Your task to perform on an android device: delete the emails in spam in the gmail app Image 0: 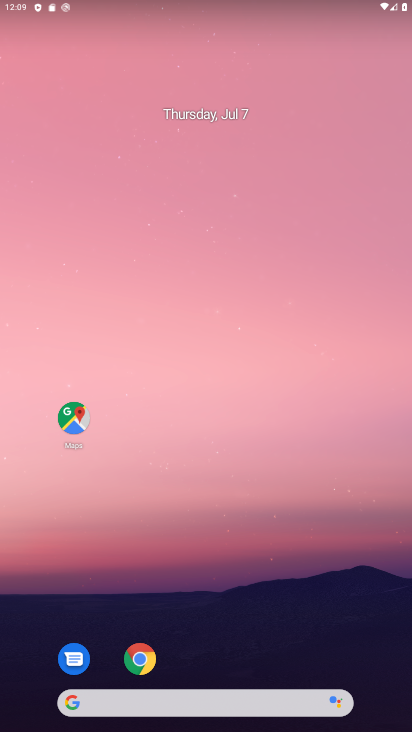
Step 0: drag from (265, 594) to (198, 95)
Your task to perform on an android device: delete the emails in spam in the gmail app Image 1: 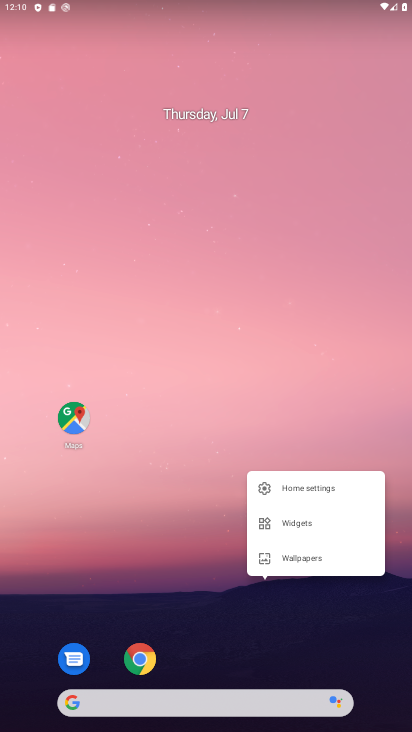
Step 1: drag from (168, 537) to (183, 27)
Your task to perform on an android device: delete the emails in spam in the gmail app Image 2: 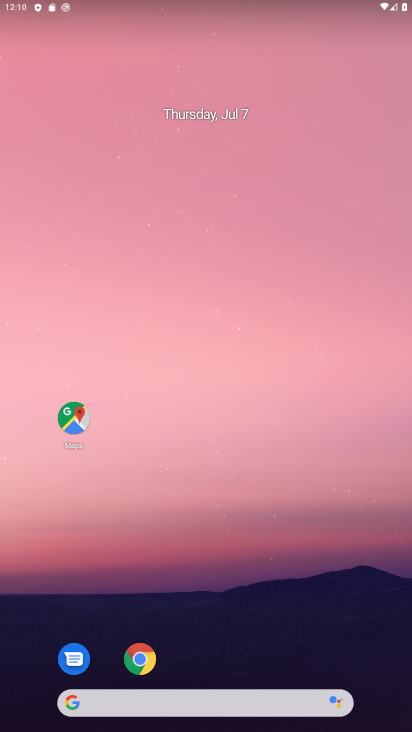
Step 2: drag from (265, 668) to (189, 121)
Your task to perform on an android device: delete the emails in spam in the gmail app Image 3: 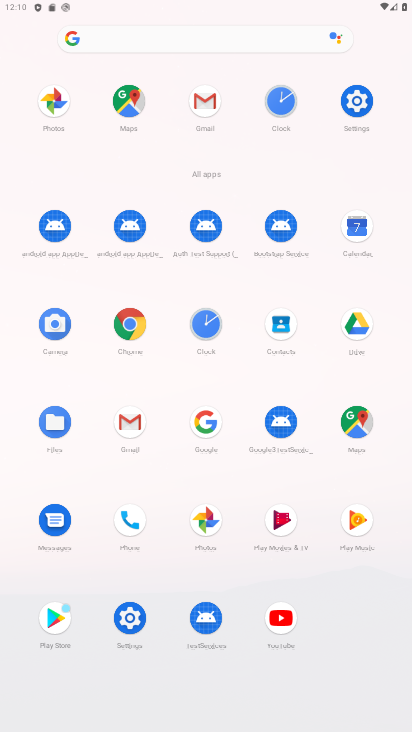
Step 3: click (209, 96)
Your task to perform on an android device: delete the emails in spam in the gmail app Image 4: 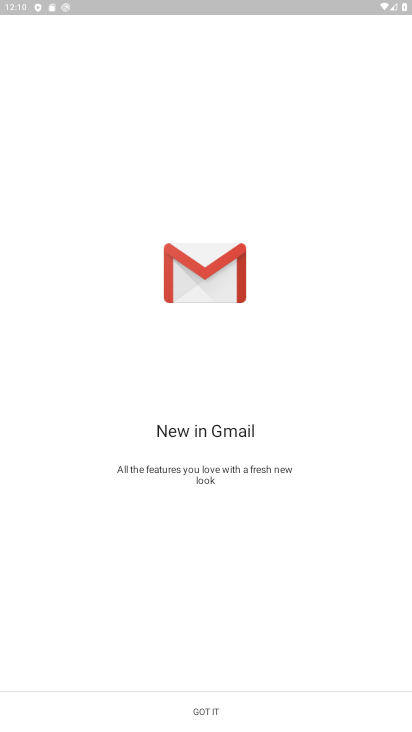
Step 4: click (215, 715)
Your task to perform on an android device: delete the emails in spam in the gmail app Image 5: 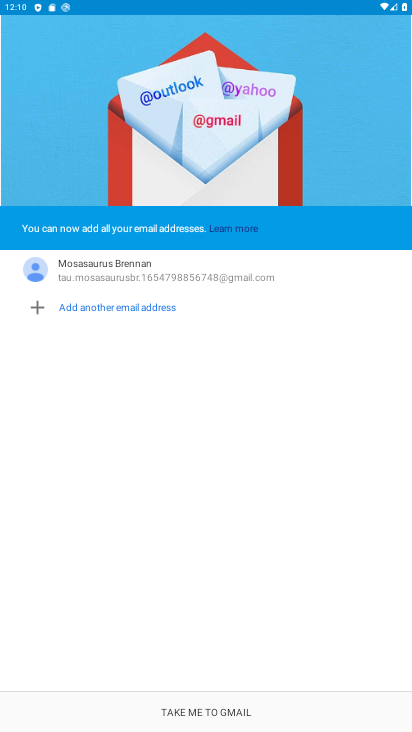
Step 5: click (207, 709)
Your task to perform on an android device: delete the emails in spam in the gmail app Image 6: 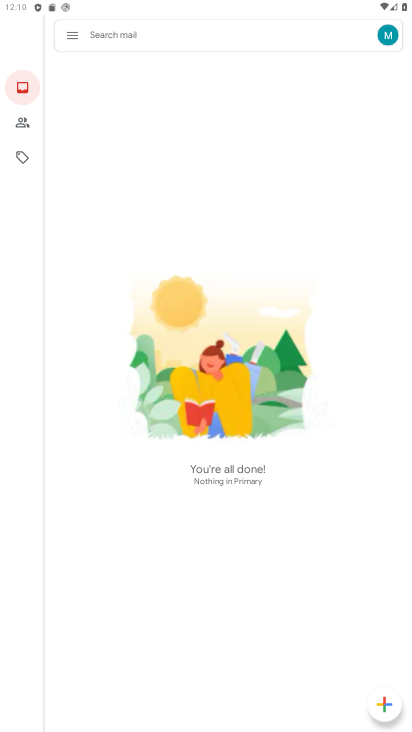
Step 6: click (68, 33)
Your task to perform on an android device: delete the emails in spam in the gmail app Image 7: 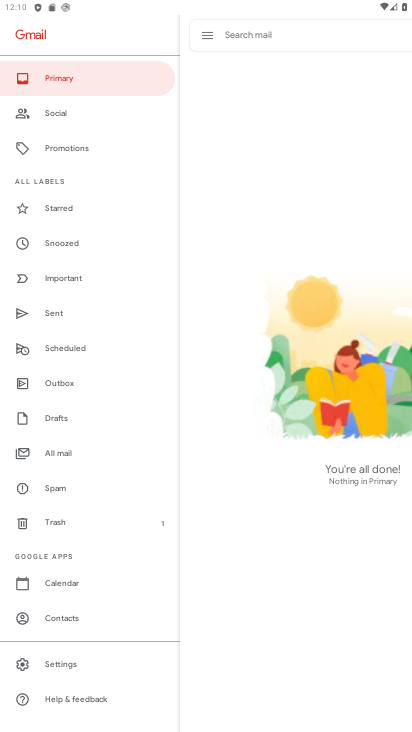
Step 7: click (55, 489)
Your task to perform on an android device: delete the emails in spam in the gmail app Image 8: 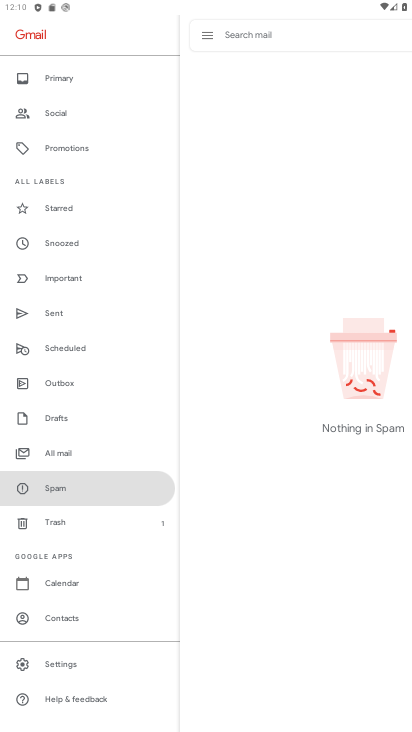
Step 8: task complete